Your task to perform on an android device: check storage Image 0: 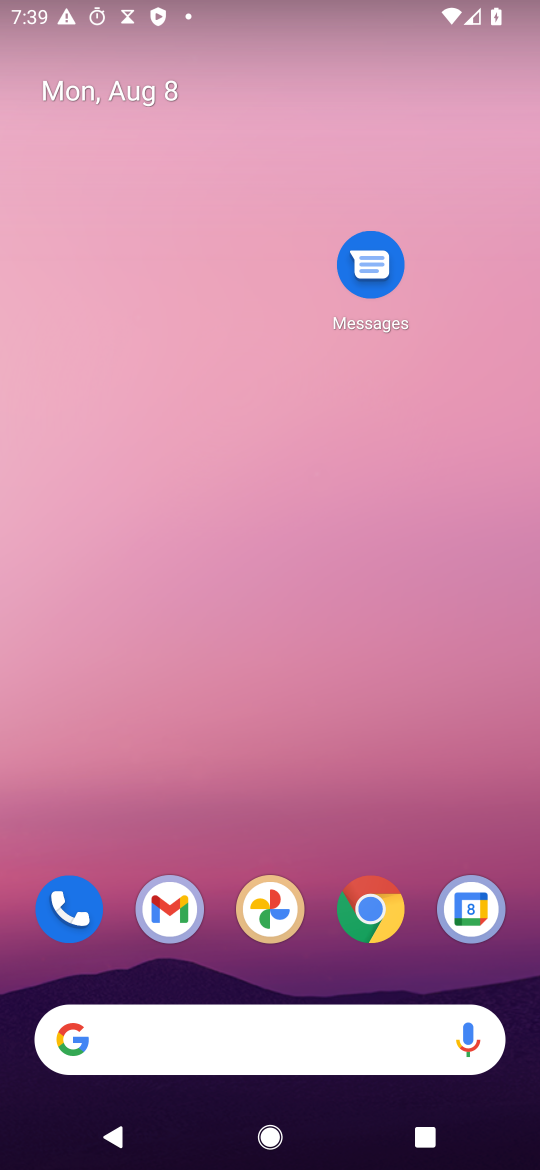
Step 0: drag from (278, 846) to (435, 56)
Your task to perform on an android device: check storage Image 1: 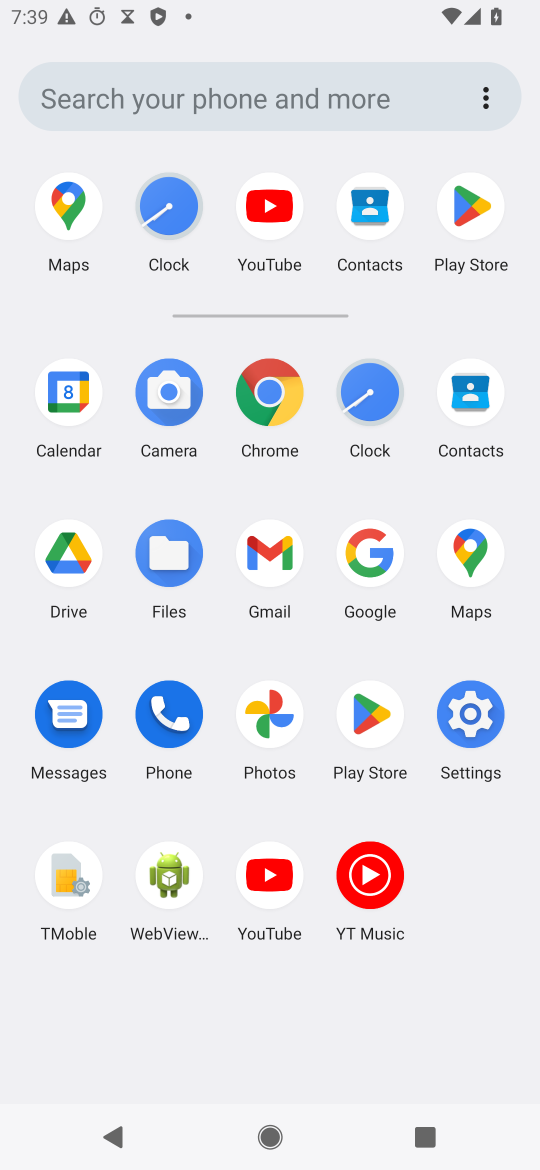
Step 1: click (469, 711)
Your task to perform on an android device: check storage Image 2: 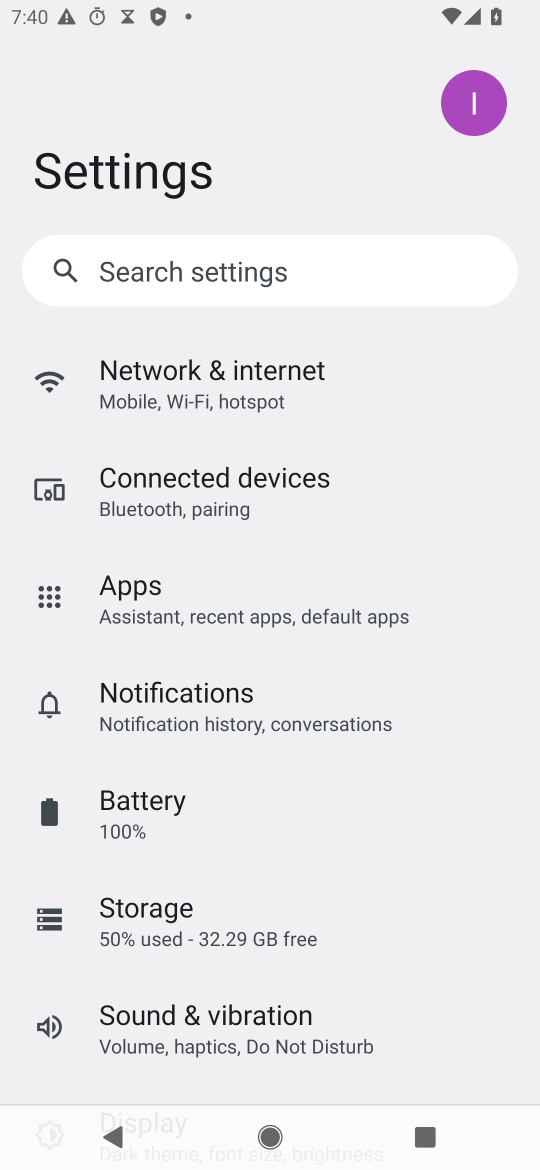
Step 2: click (153, 917)
Your task to perform on an android device: check storage Image 3: 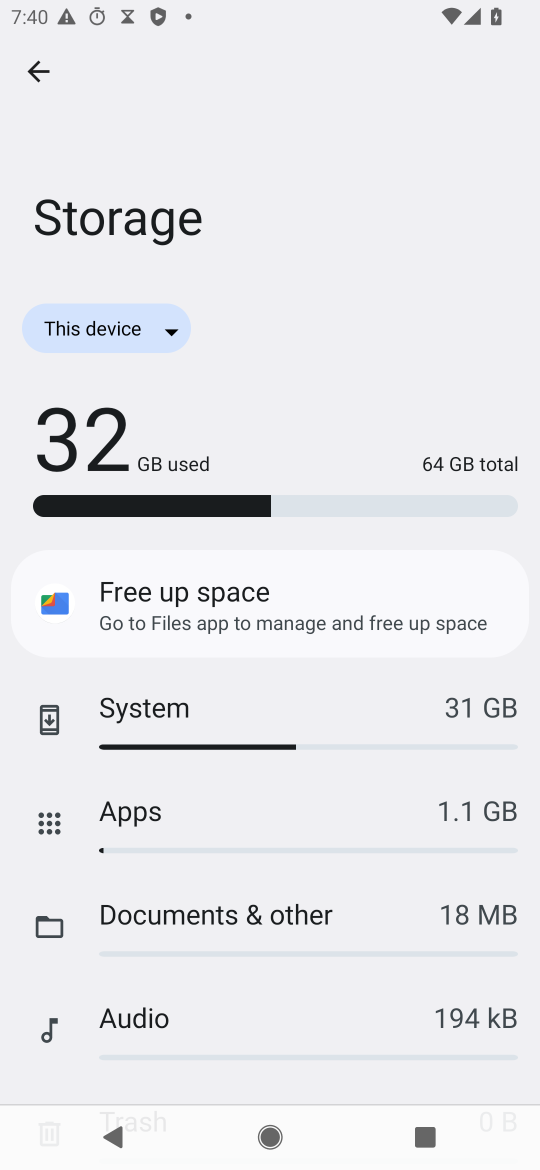
Step 3: task complete